Your task to perform on an android device: Go to Maps Image 0: 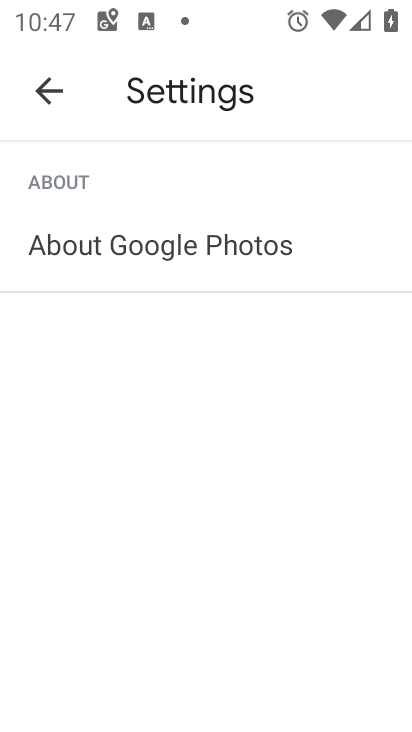
Step 0: press home button
Your task to perform on an android device: Go to Maps Image 1: 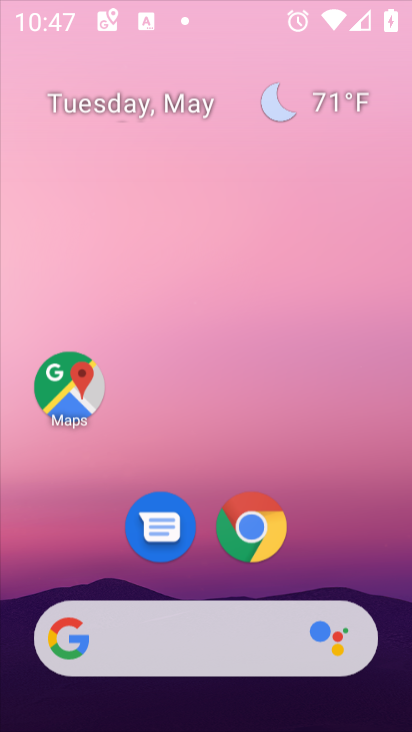
Step 1: drag from (229, 641) to (245, 75)
Your task to perform on an android device: Go to Maps Image 2: 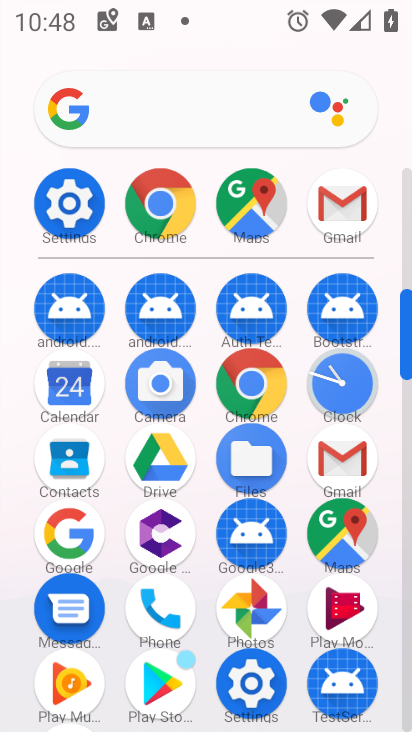
Step 2: click (254, 225)
Your task to perform on an android device: Go to Maps Image 3: 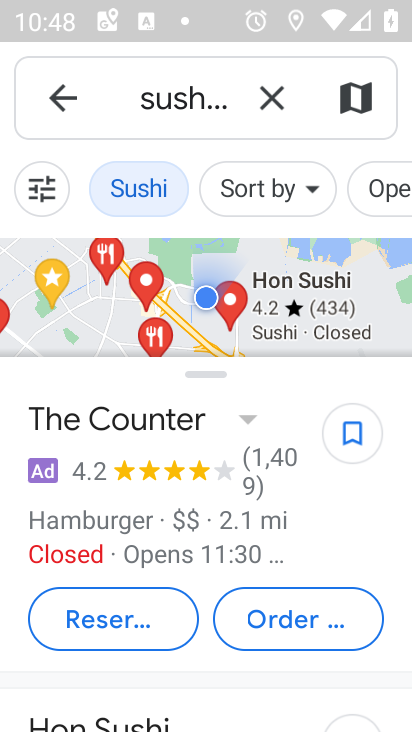
Step 3: click (275, 106)
Your task to perform on an android device: Go to Maps Image 4: 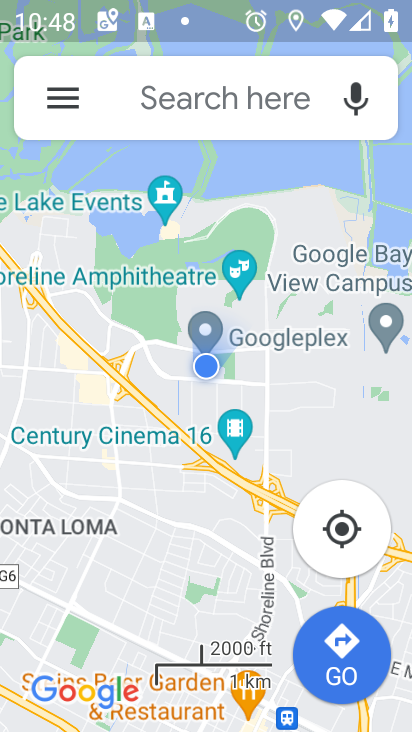
Step 4: task complete